Your task to perform on an android device: turn on bluetooth scan Image 0: 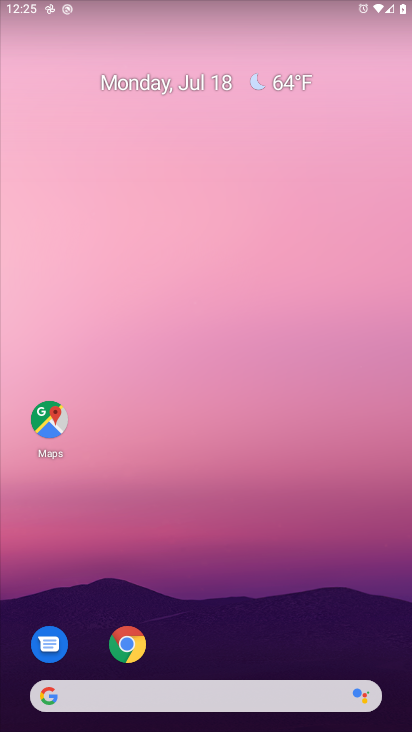
Step 0: press home button
Your task to perform on an android device: turn on bluetooth scan Image 1: 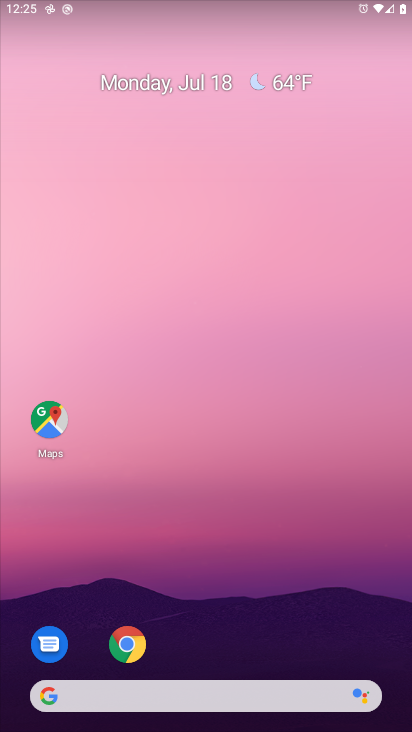
Step 1: drag from (292, 565) to (313, 105)
Your task to perform on an android device: turn on bluetooth scan Image 2: 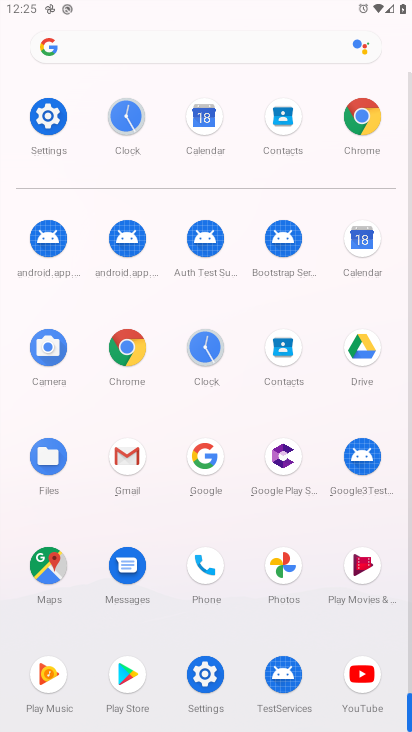
Step 2: click (46, 118)
Your task to perform on an android device: turn on bluetooth scan Image 3: 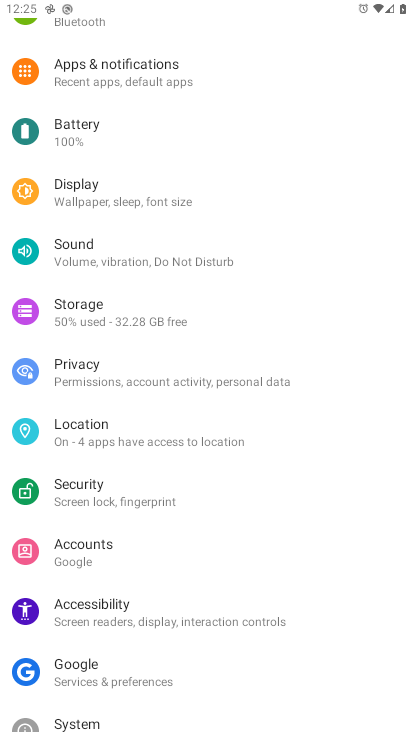
Step 3: click (111, 432)
Your task to perform on an android device: turn on bluetooth scan Image 4: 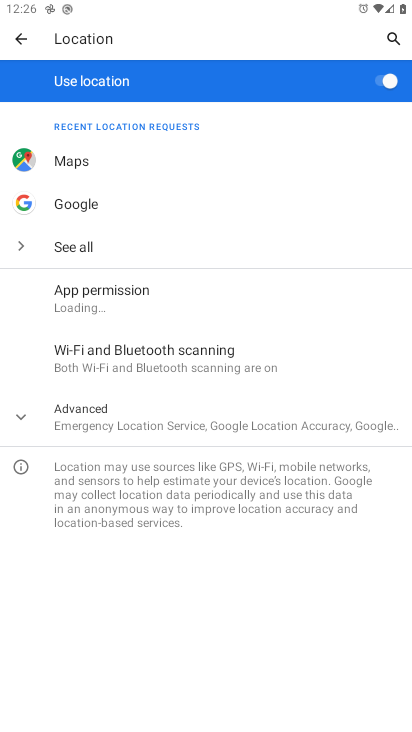
Step 4: click (201, 353)
Your task to perform on an android device: turn on bluetooth scan Image 5: 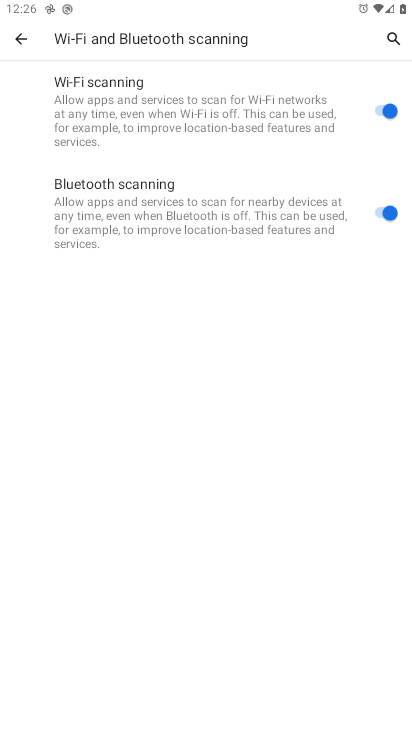
Step 5: task complete